Your task to perform on an android device: Open display settings Image 0: 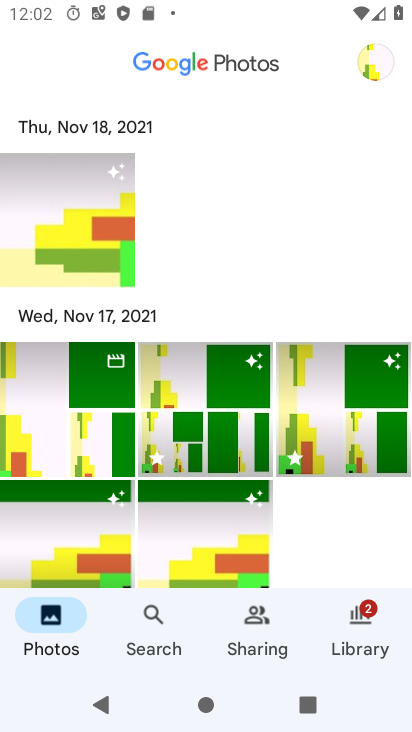
Step 0: press home button
Your task to perform on an android device: Open display settings Image 1: 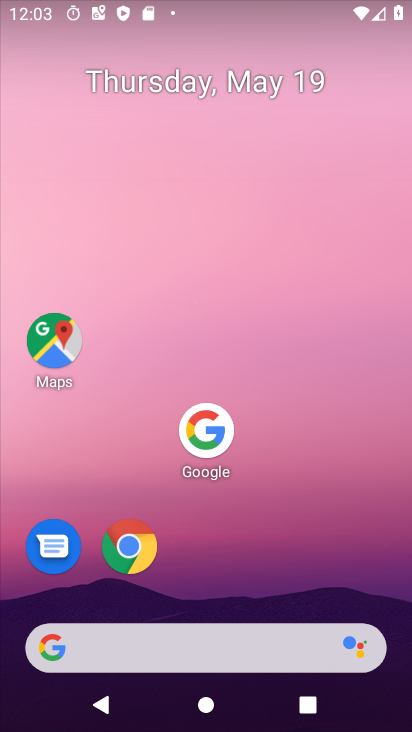
Step 1: drag from (263, 545) to (270, 55)
Your task to perform on an android device: Open display settings Image 2: 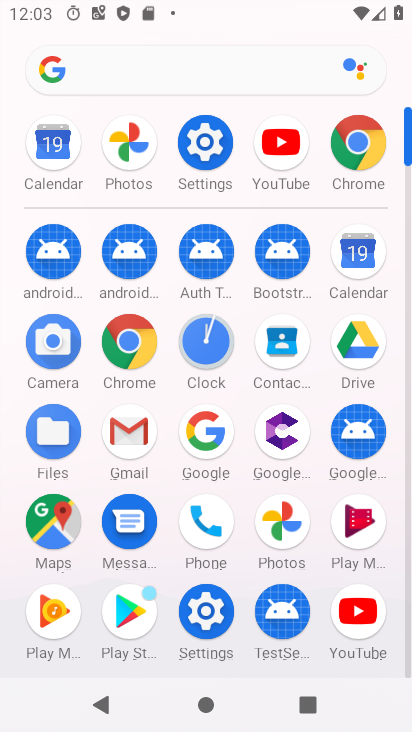
Step 2: click (206, 151)
Your task to perform on an android device: Open display settings Image 3: 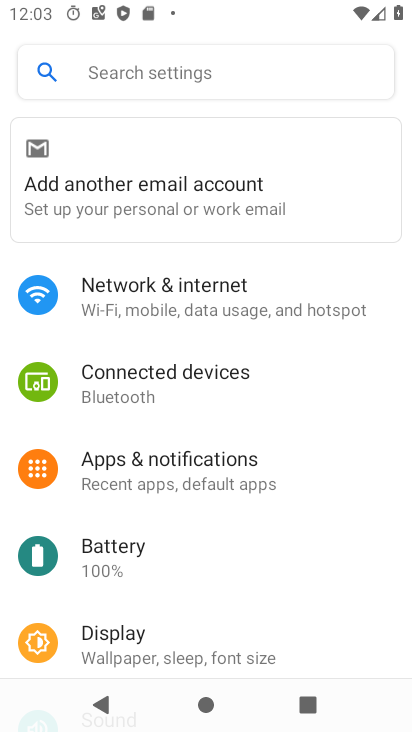
Step 3: drag from (181, 523) to (236, 184)
Your task to perform on an android device: Open display settings Image 4: 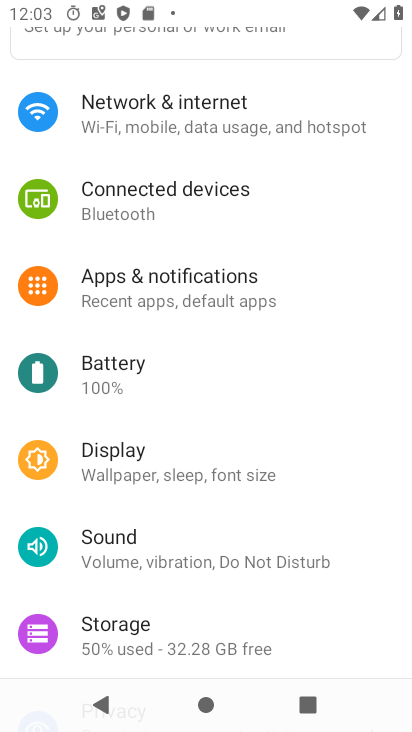
Step 4: click (155, 452)
Your task to perform on an android device: Open display settings Image 5: 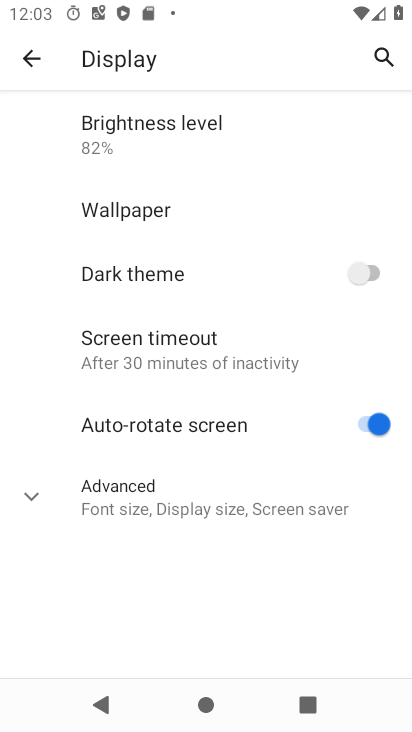
Step 5: task complete